Your task to perform on an android device: read, delete, or share a saved page in the chrome app Image 0: 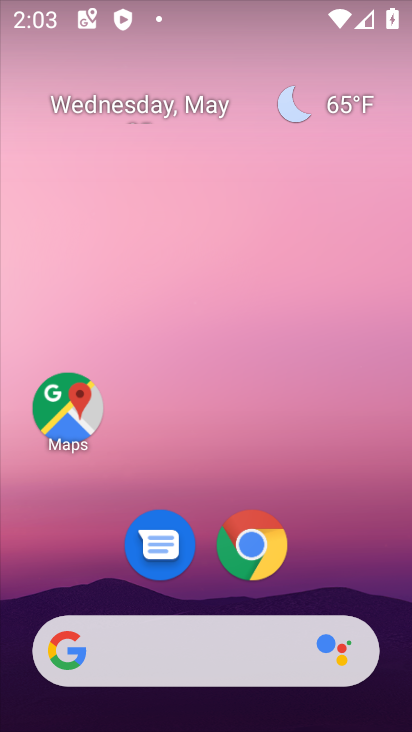
Step 0: click (257, 545)
Your task to perform on an android device: read, delete, or share a saved page in the chrome app Image 1: 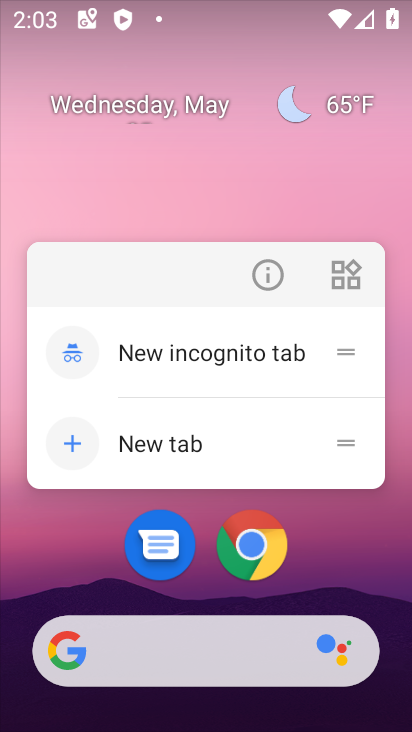
Step 1: click (251, 546)
Your task to perform on an android device: read, delete, or share a saved page in the chrome app Image 2: 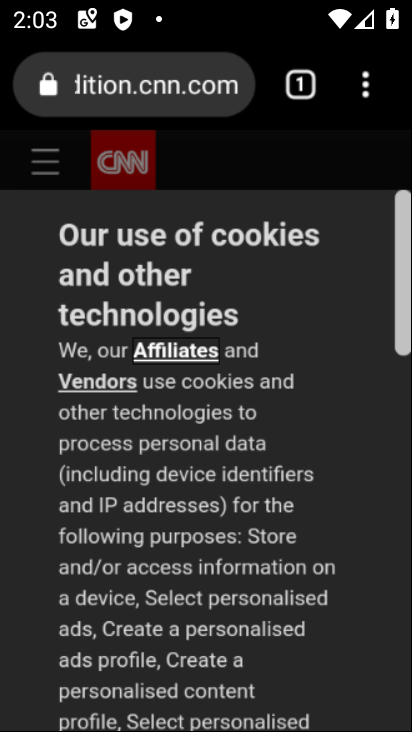
Step 2: click (352, 85)
Your task to perform on an android device: read, delete, or share a saved page in the chrome app Image 3: 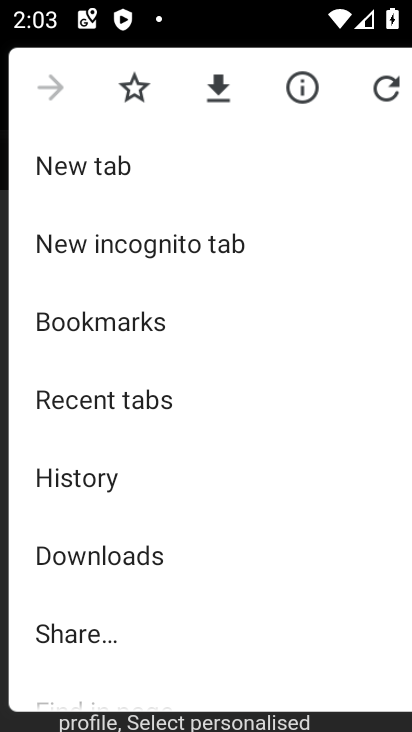
Step 3: click (160, 566)
Your task to perform on an android device: read, delete, or share a saved page in the chrome app Image 4: 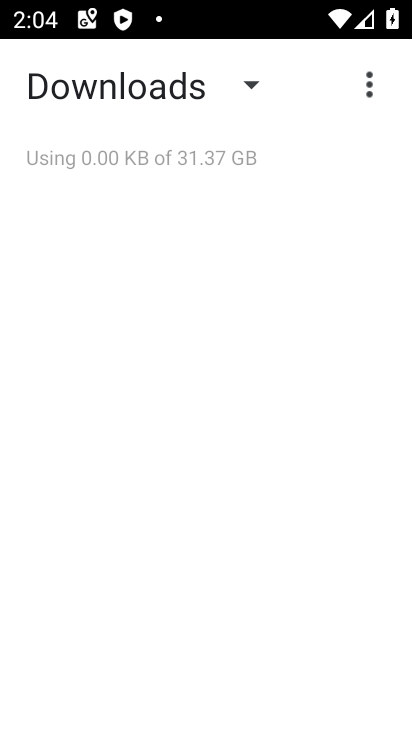
Step 4: click (145, 97)
Your task to perform on an android device: read, delete, or share a saved page in the chrome app Image 5: 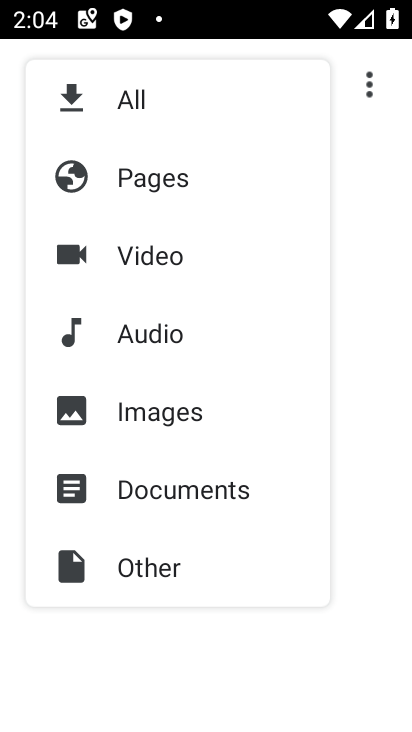
Step 5: click (166, 204)
Your task to perform on an android device: read, delete, or share a saved page in the chrome app Image 6: 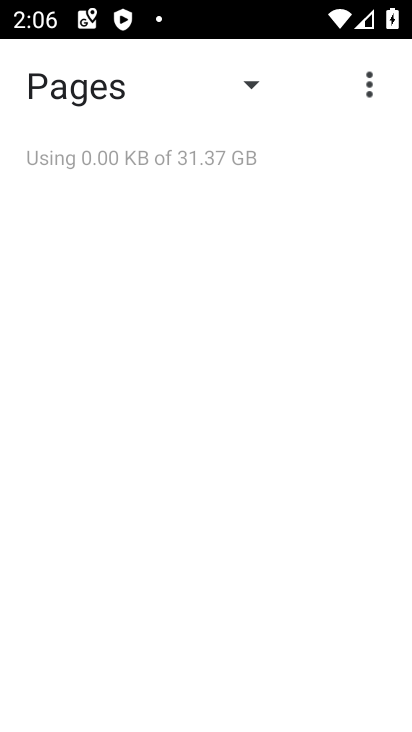
Step 6: task complete